Your task to perform on an android device: Go to Maps Image 0: 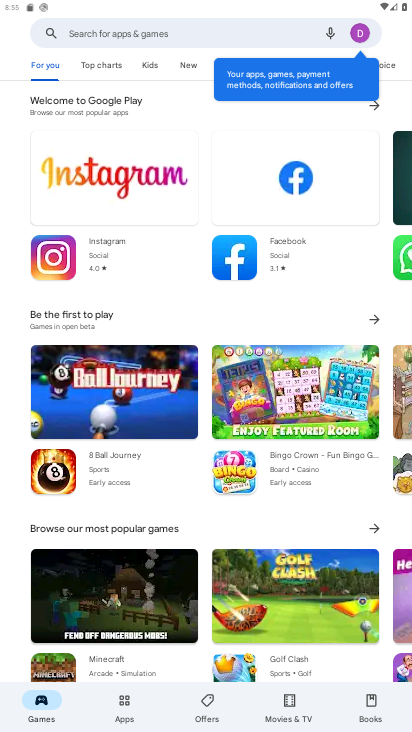
Step 0: press home button
Your task to perform on an android device: Go to Maps Image 1: 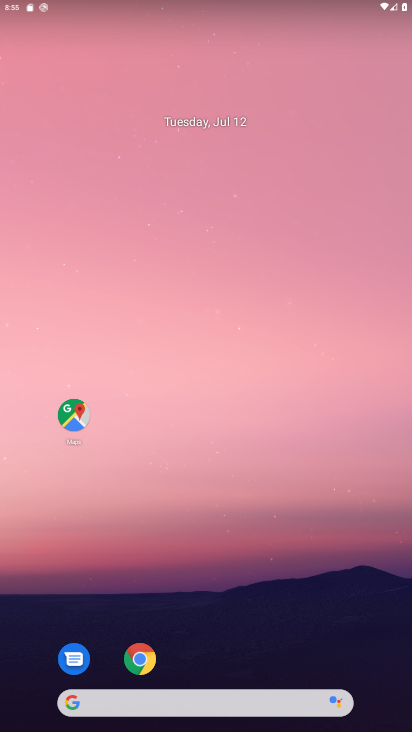
Step 1: drag from (270, 596) to (242, 51)
Your task to perform on an android device: Go to Maps Image 2: 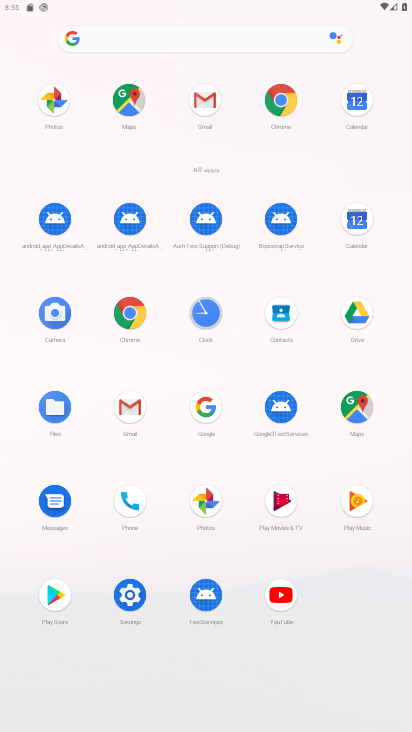
Step 2: click (361, 411)
Your task to perform on an android device: Go to Maps Image 3: 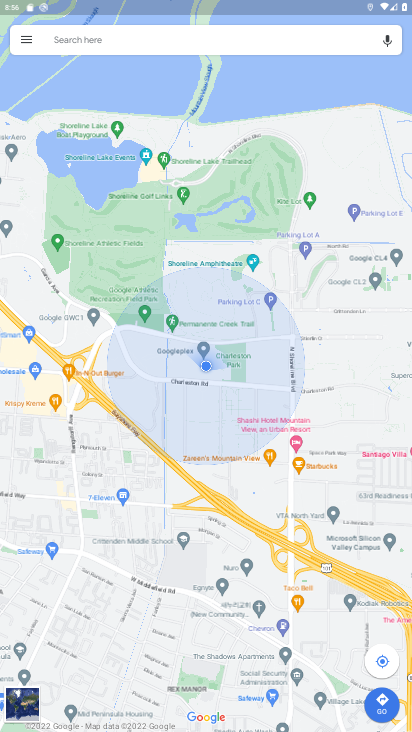
Step 3: task complete